Your task to perform on an android device: Is it going to rain this weekend? Image 0: 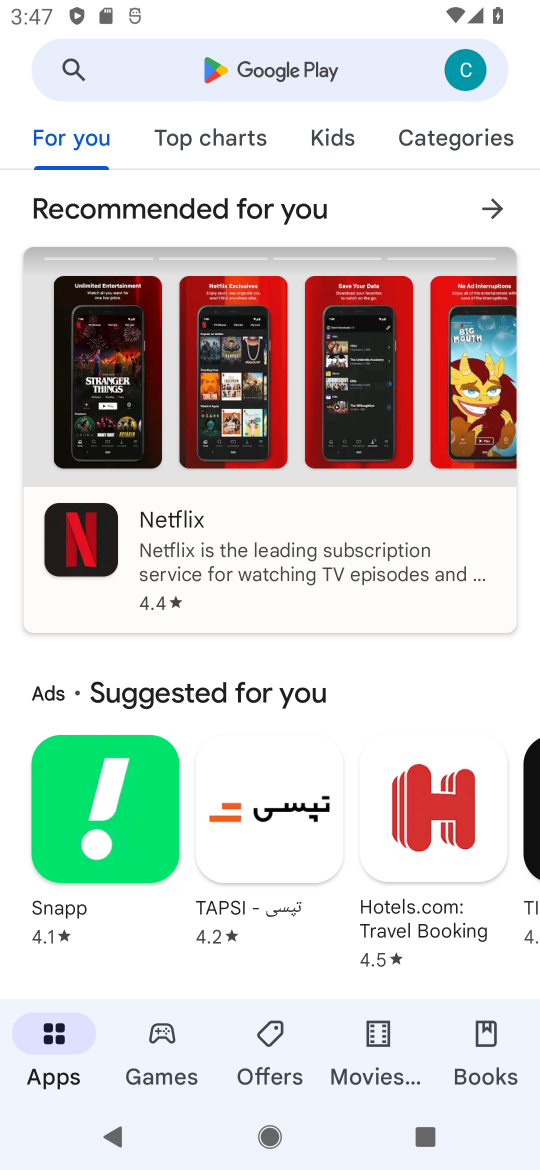
Step 0: press home button
Your task to perform on an android device: Is it going to rain this weekend? Image 1: 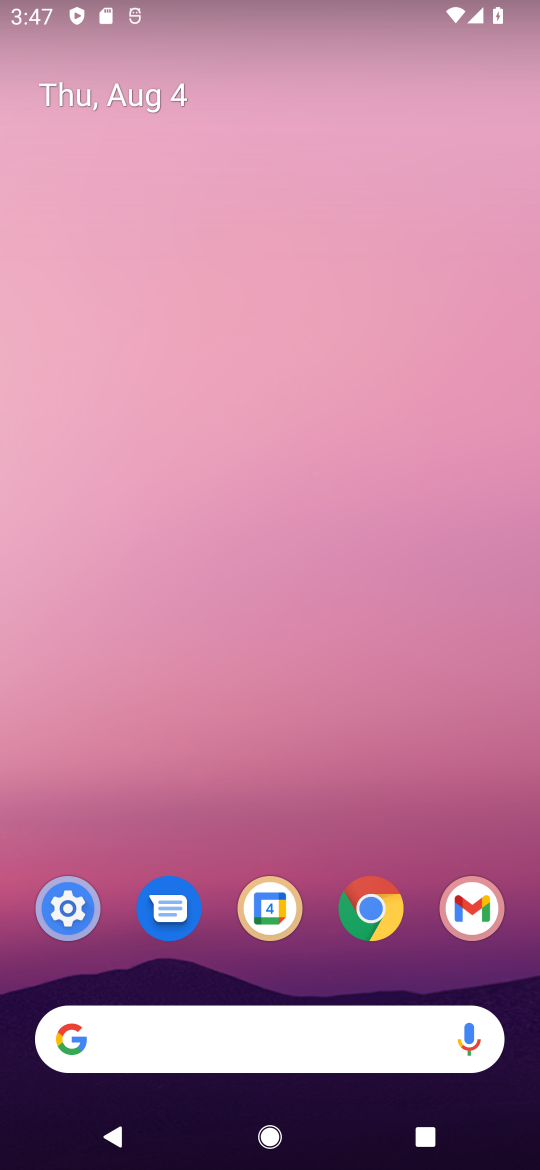
Step 1: click (381, 1017)
Your task to perform on an android device: Is it going to rain this weekend? Image 2: 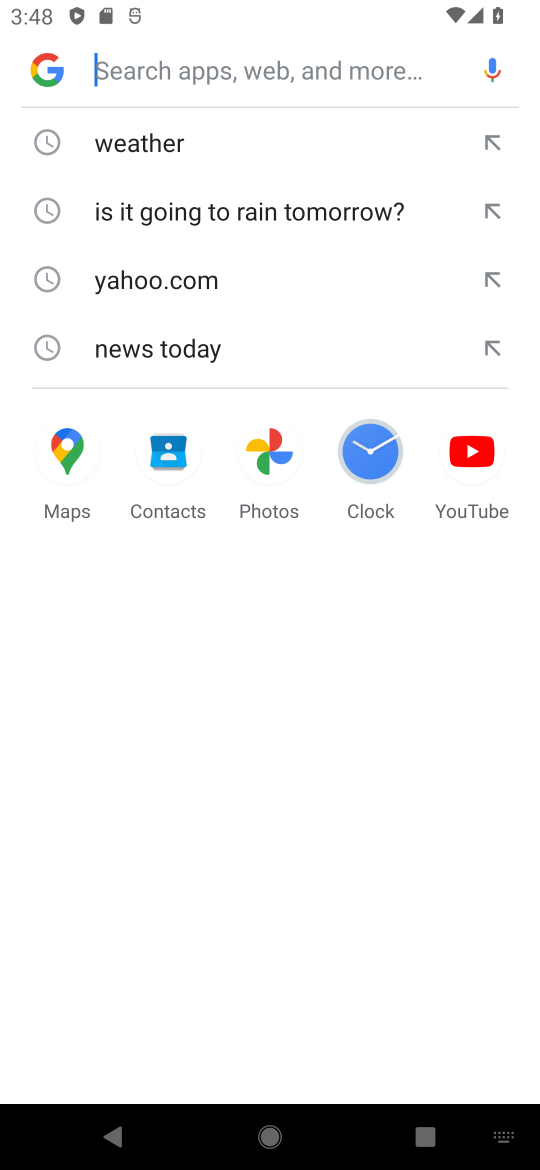
Step 2: type "is it going to rain this weekend"
Your task to perform on an android device: Is it going to rain this weekend? Image 3: 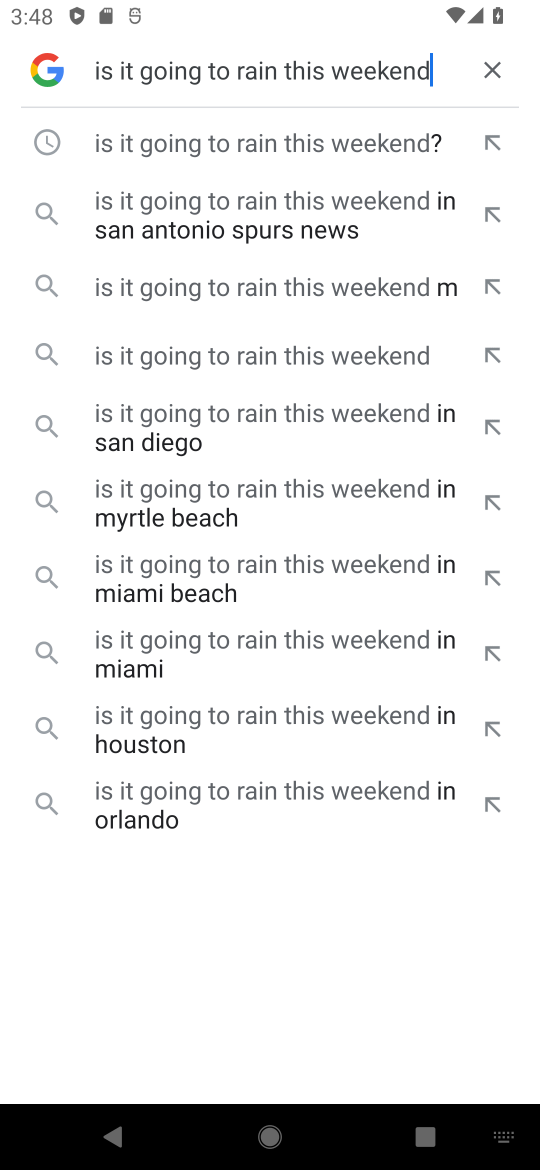
Step 3: click (153, 135)
Your task to perform on an android device: Is it going to rain this weekend? Image 4: 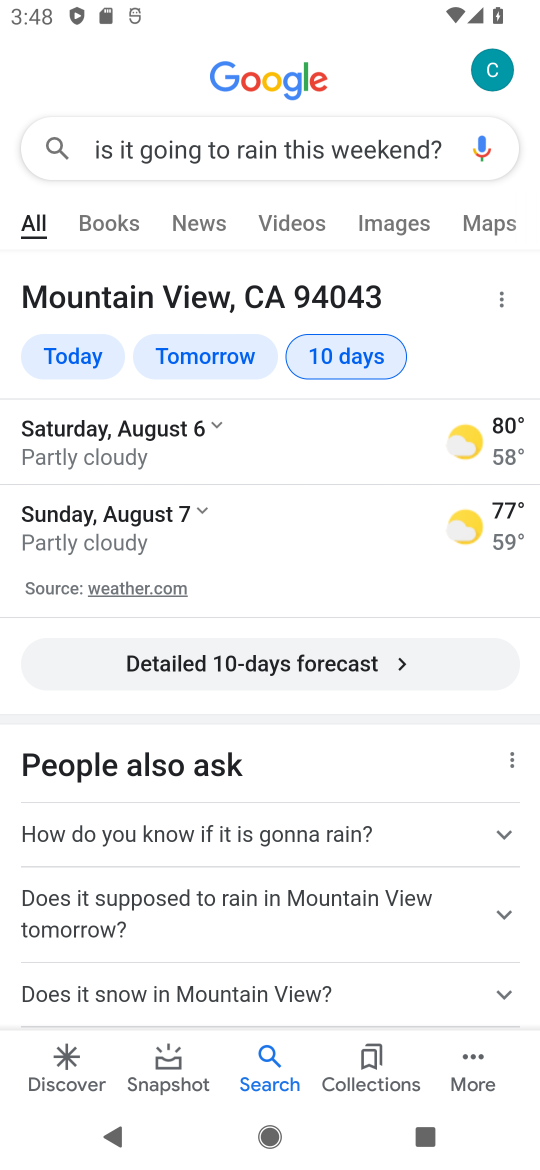
Step 4: task complete